Your task to perform on an android device: set an alarm Image 0: 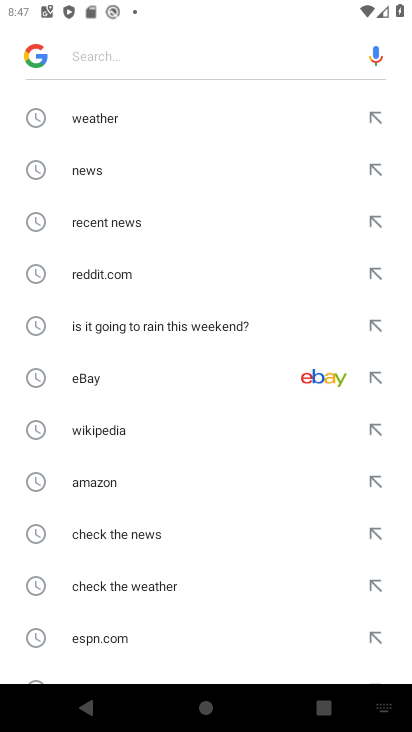
Step 0: press home button
Your task to perform on an android device: set an alarm Image 1: 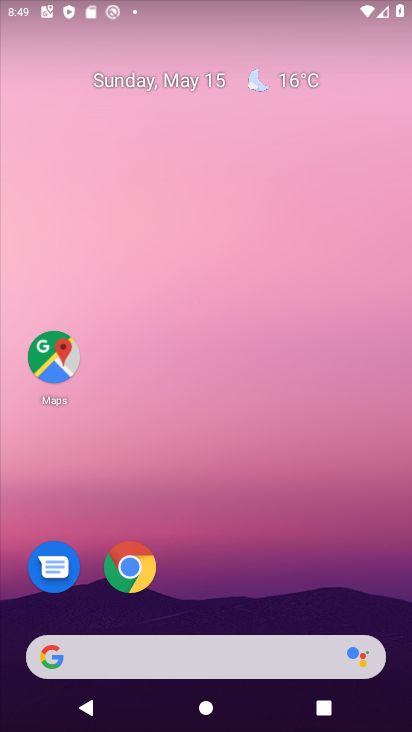
Step 1: drag from (202, 667) to (356, 239)
Your task to perform on an android device: set an alarm Image 2: 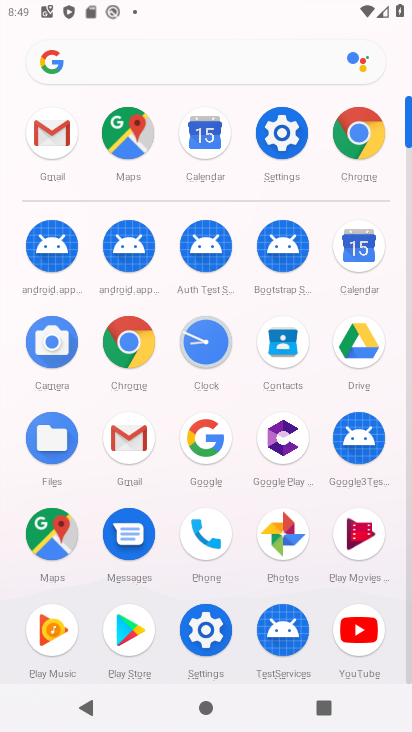
Step 2: click (207, 352)
Your task to perform on an android device: set an alarm Image 3: 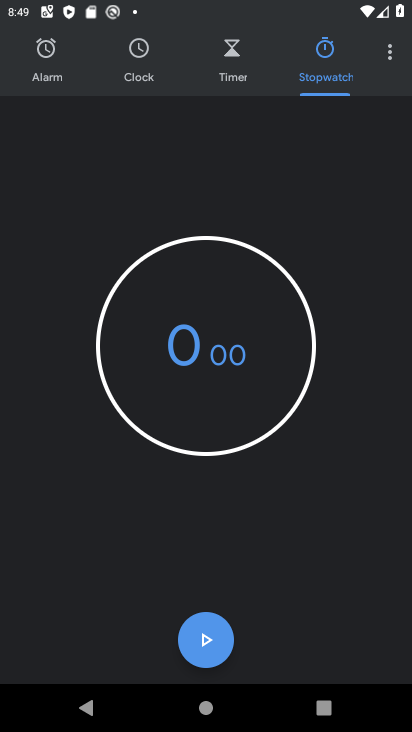
Step 3: click (52, 80)
Your task to perform on an android device: set an alarm Image 4: 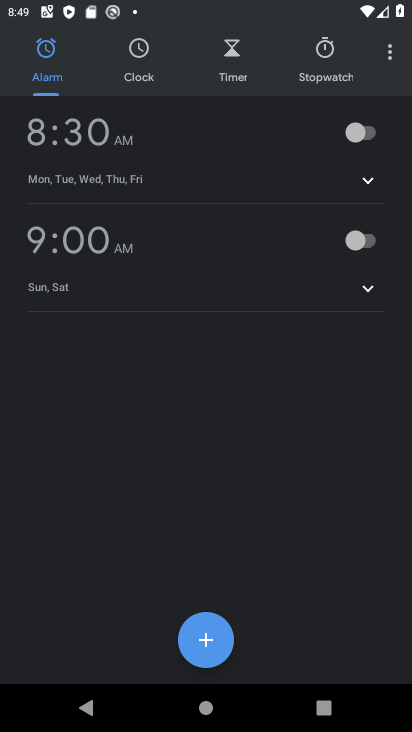
Step 4: click (193, 658)
Your task to perform on an android device: set an alarm Image 5: 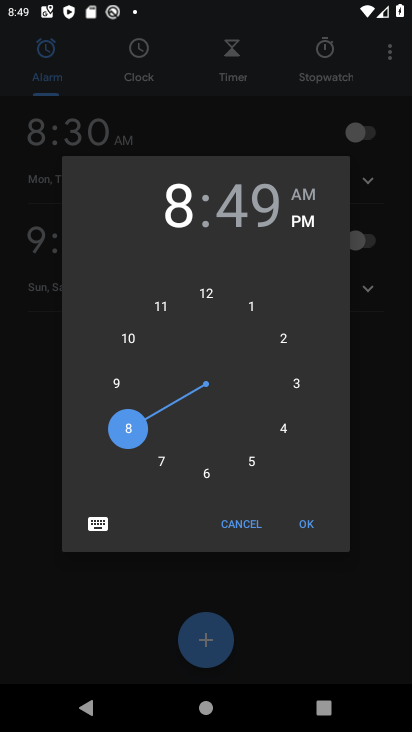
Step 5: click (126, 345)
Your task to perform on an android device: set an alarm Image 6: 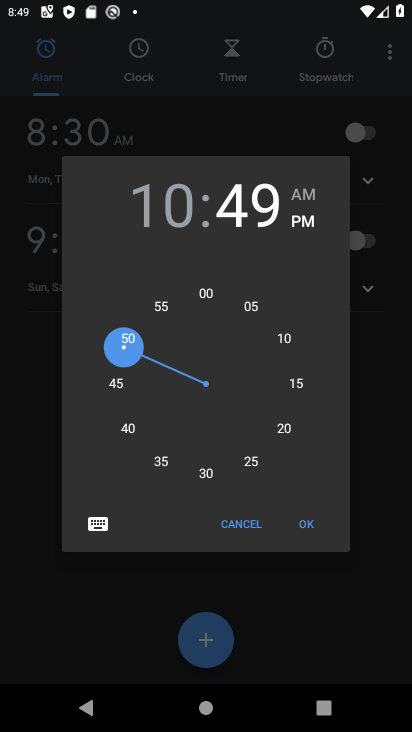
Step 6: click (312, 520)
Your task to perform on an android device: set an alarm Image 7: 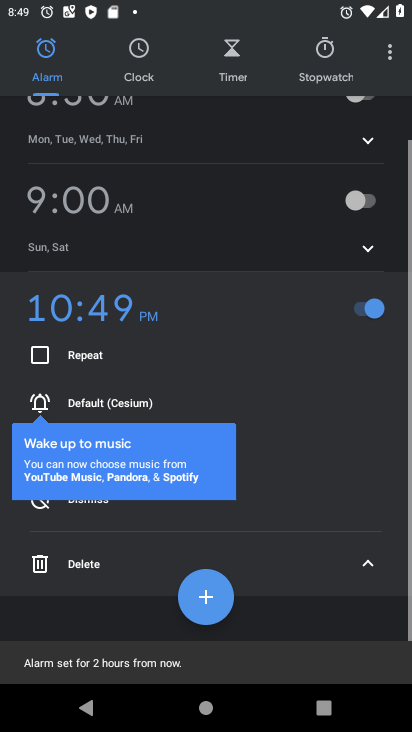
Step 7: task complete